Your task to perform on an android device: What's the weather going to be tomorrow? Image 0: 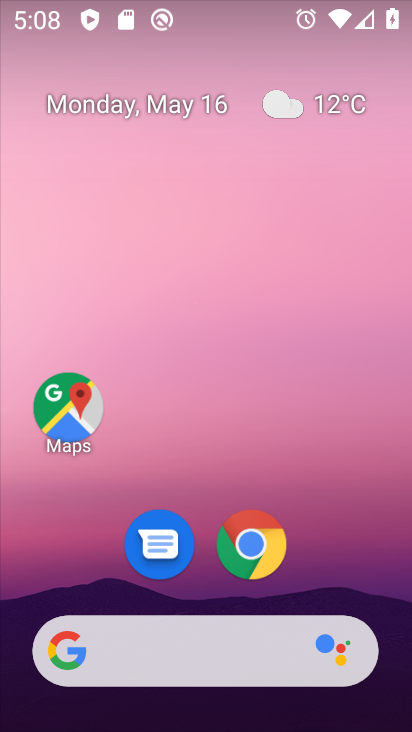
Step 0: drag from (347, 574) to (223, 104)
Your task to perform on an android device: What's the weather going to be tomorrow? Image 1: 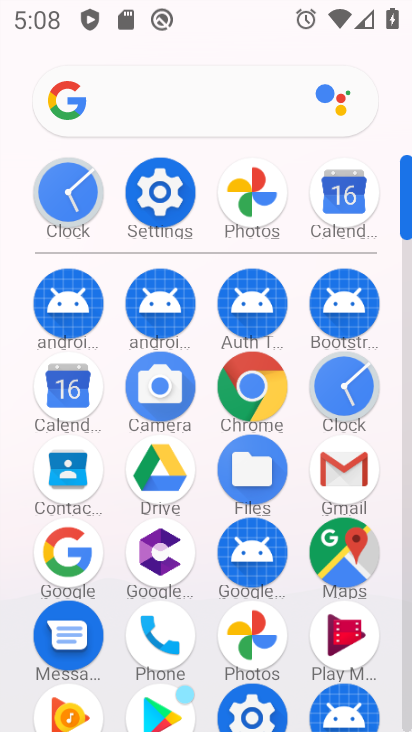
Step 1: drag from (201, 456) to (174, 228)
Your task to perform on an android device: What's the weather going to be tomorrow? Image 2: 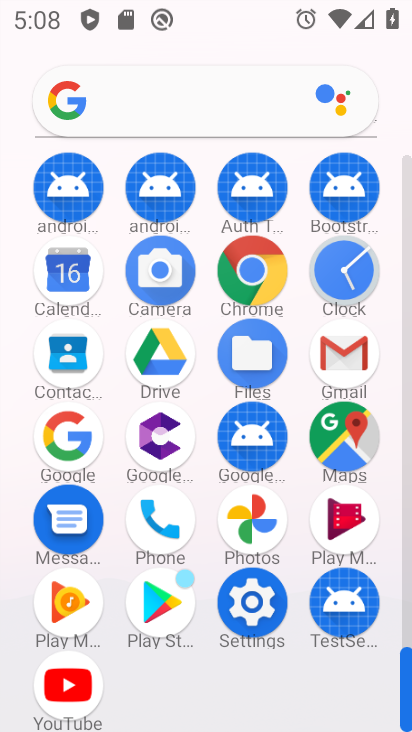
Step 2: click (63, 436)
Your task to perform on an android device: What's the weather going to be tomorrow? Image 3: 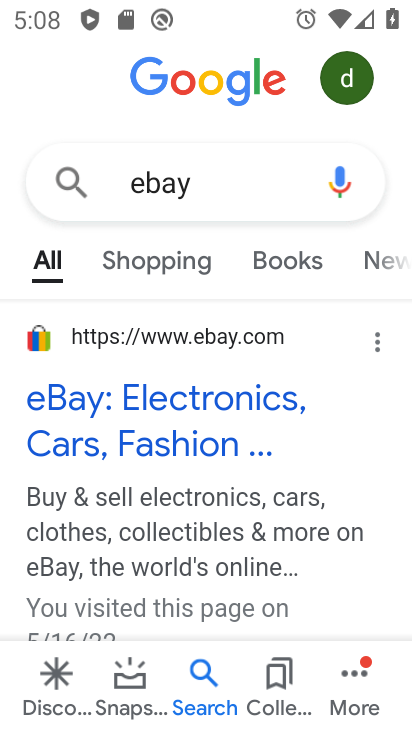
Step 3: click (227, 183)
Your task to perform on an android device: What's the weather going to be tomorrow? Image 4: 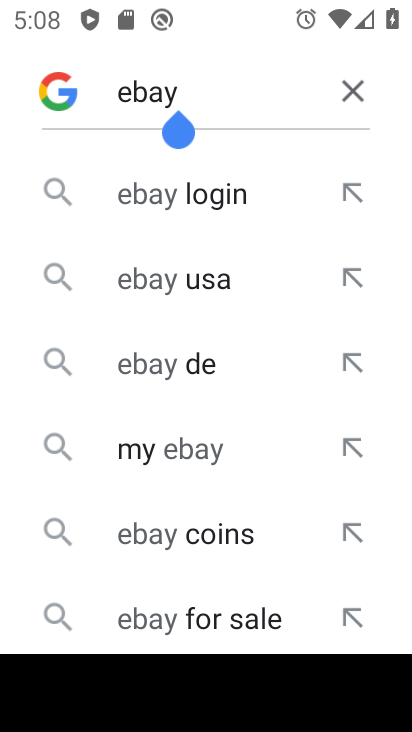
Step 4: click (347, 89)
Your task to perform on an android device: What's the weather going to be tomorrow? Image 5: 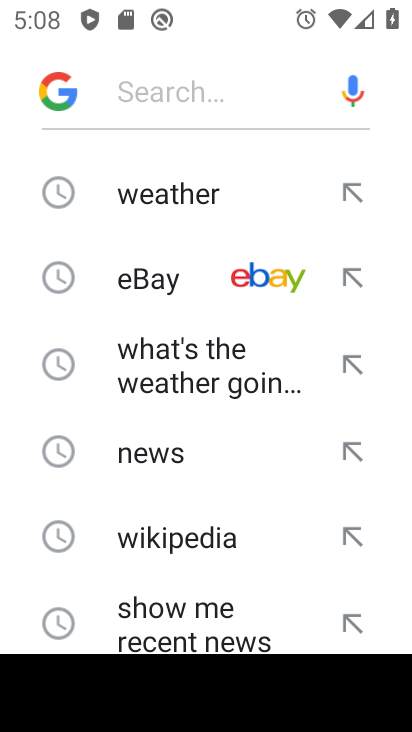
Step 5: click (173, 203)
Your task to perform on an android device: What's the weather going to be tomorrow? Image 6: 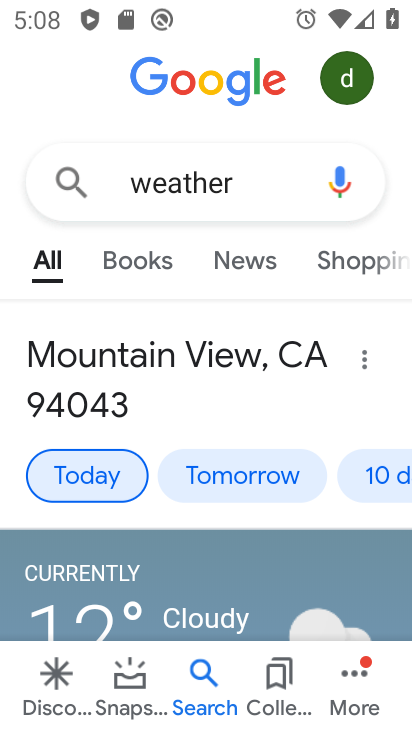
Step 6: click (252, 481)
Your task to perform on an android device: What's the weather going to be tomorrow? Image 7: 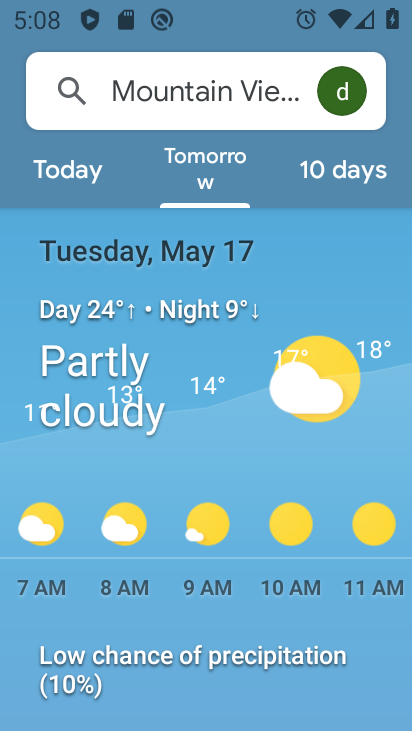
Step 7: task complete